Your task to perform on an android device: change keyboard looks Image 0: 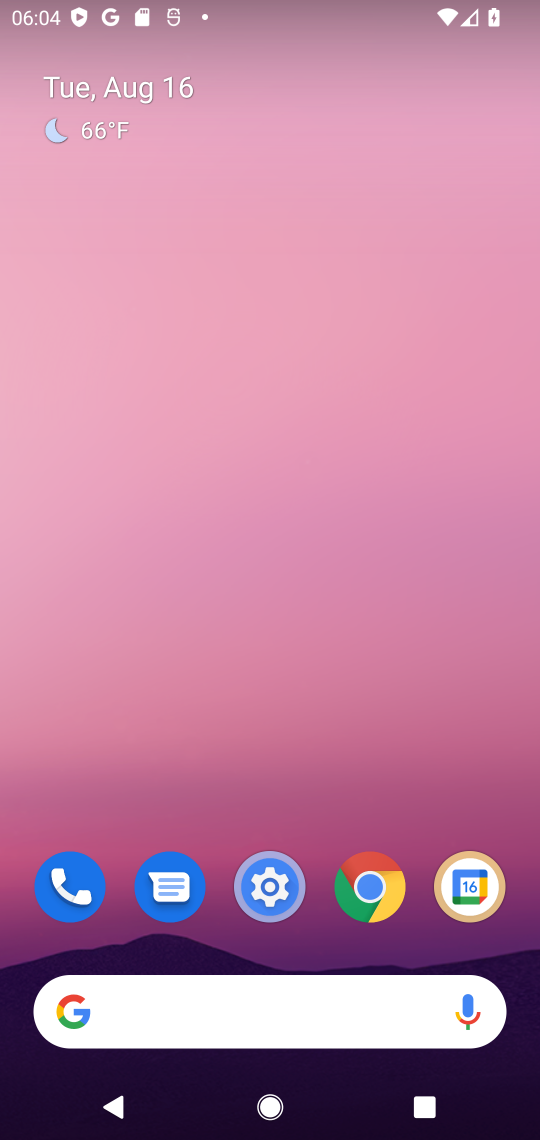
Step 0: drag from (318, 785) to (359, 180)
Your task to perform on an android device: change keyboard looks Image 1: 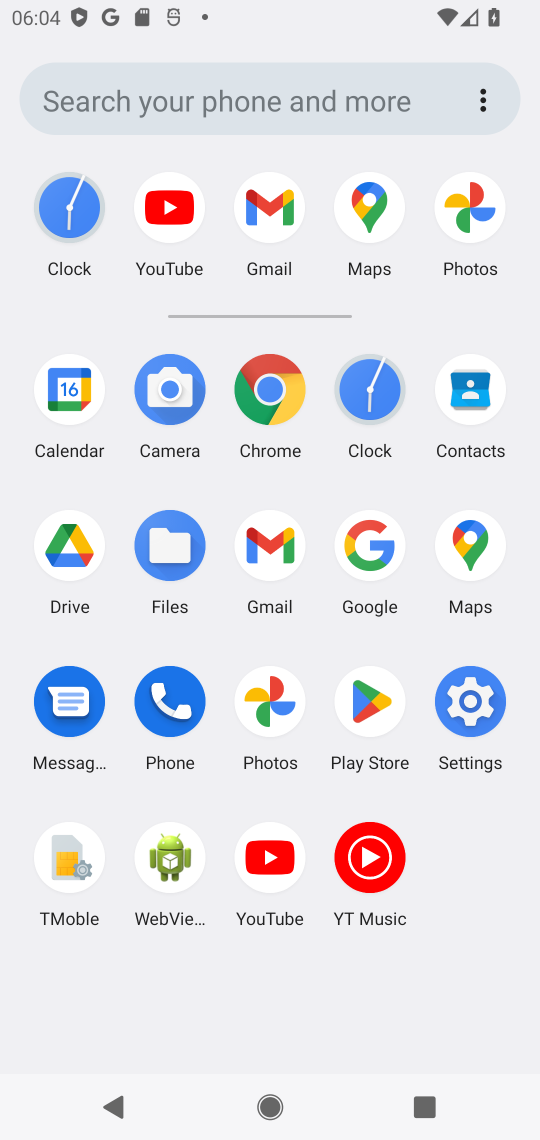
Step 1: click (449, 691)
Your task to perform on an android device: change keyboard looks Image 2: 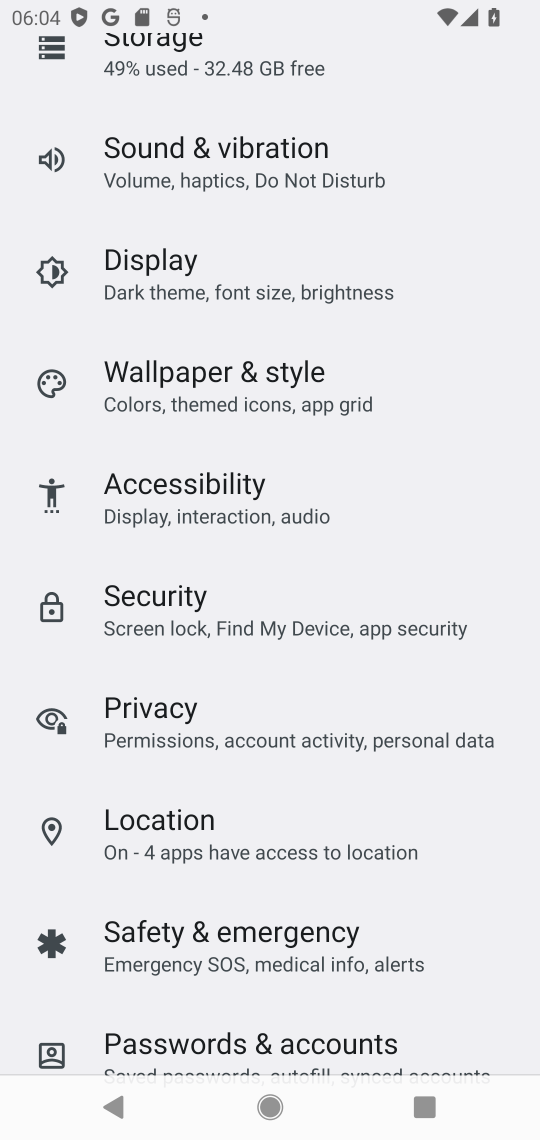
Step 2: drag from (362, 969) to (335, 415)
Your task to perform on an android device: change keyboard looks Image 3: 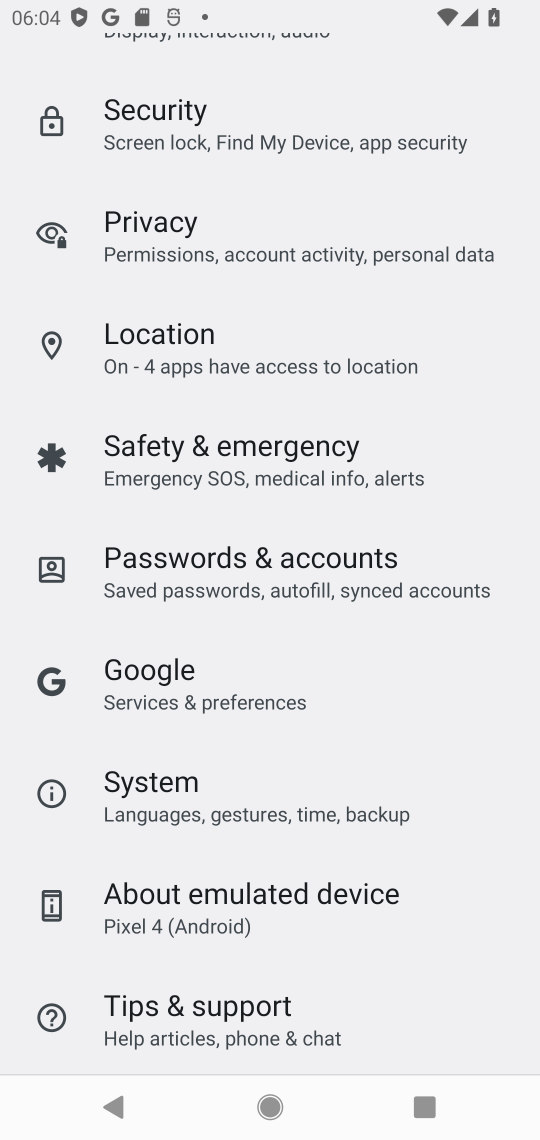
Step 3: click (237, 807)
Your task to perform on an android device: change keyboard looks Image 4: 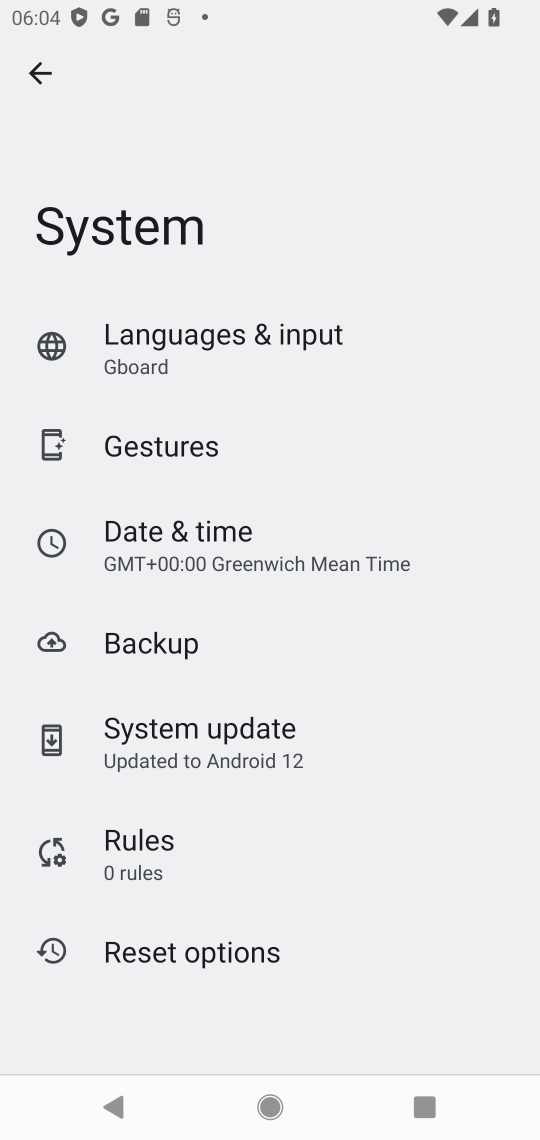
Step 4: click (281, 339)
Your task to perform on an android device: change keyboard looks Image 5: 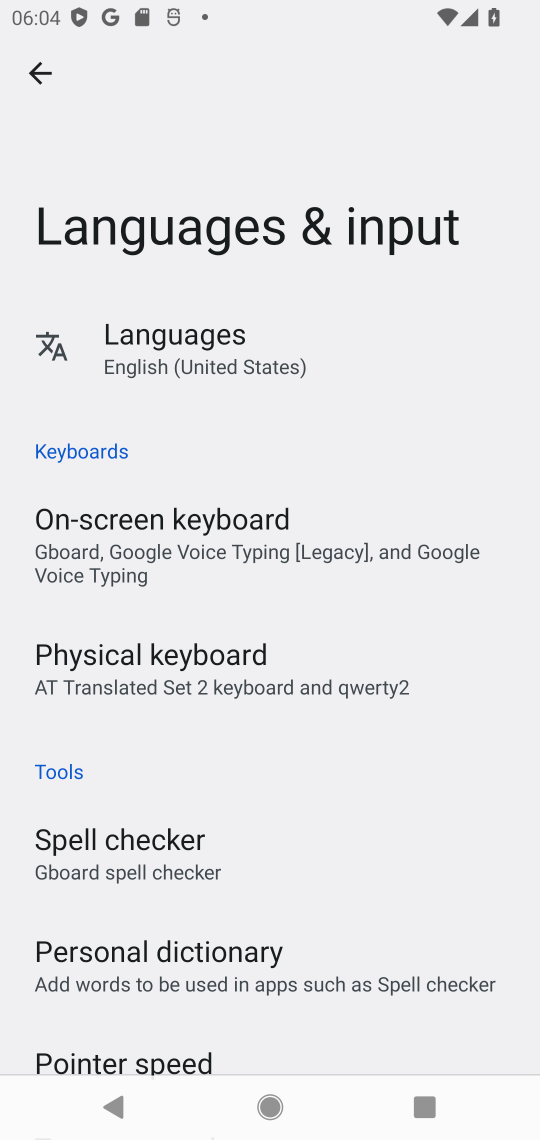
Step 5: click (201, 544)
Your task to perform on an android device: change keyboard looks Image 6: 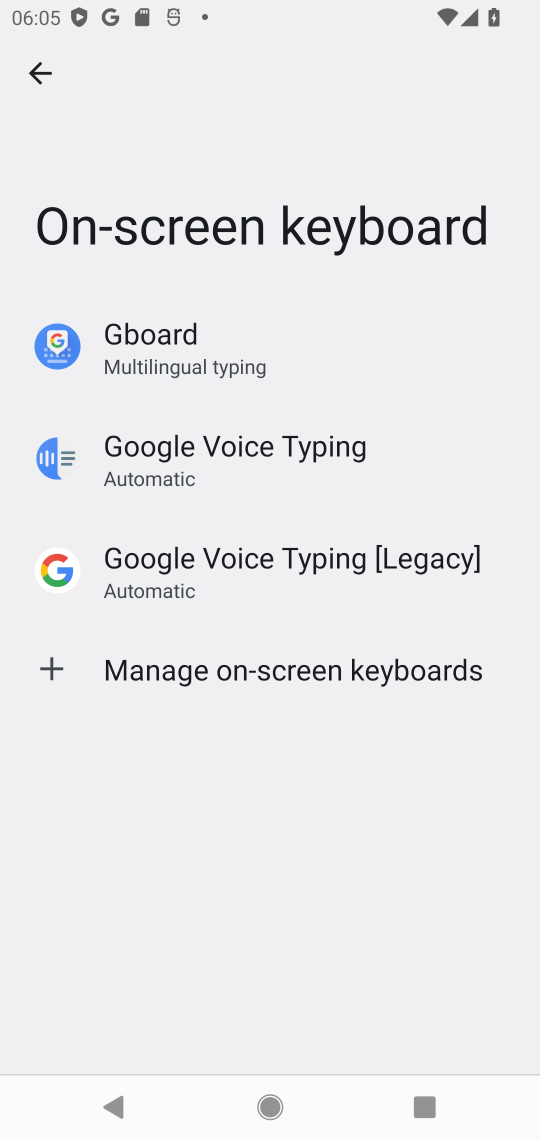
Step 6: click (208, 355)
Your task to perform on an android device: change keyboard looks Image 7: 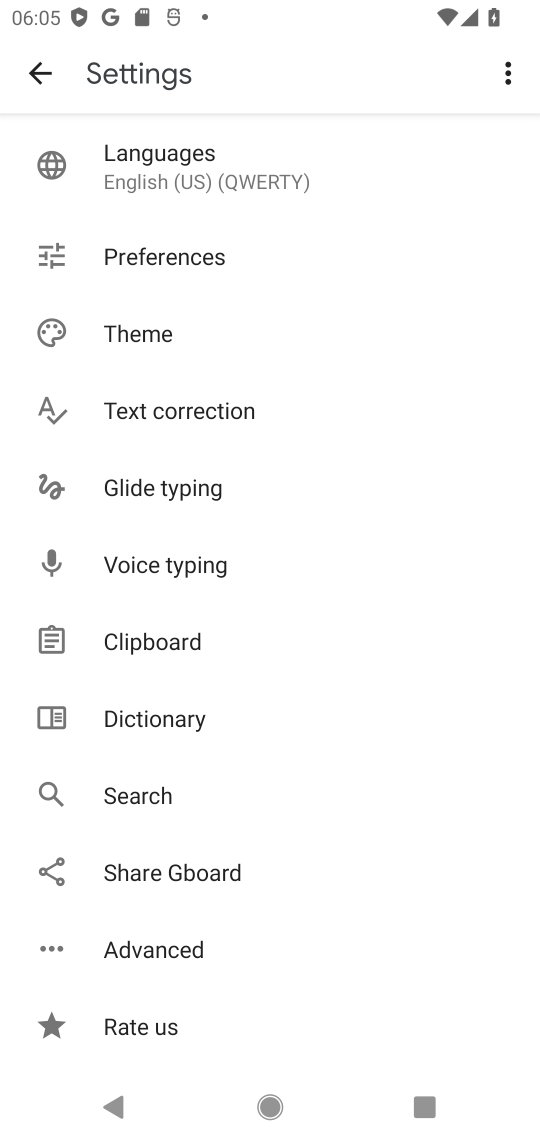
Step 7: click (180, 345)
Your task to perform on an android device: change keyboard looks Image 8: 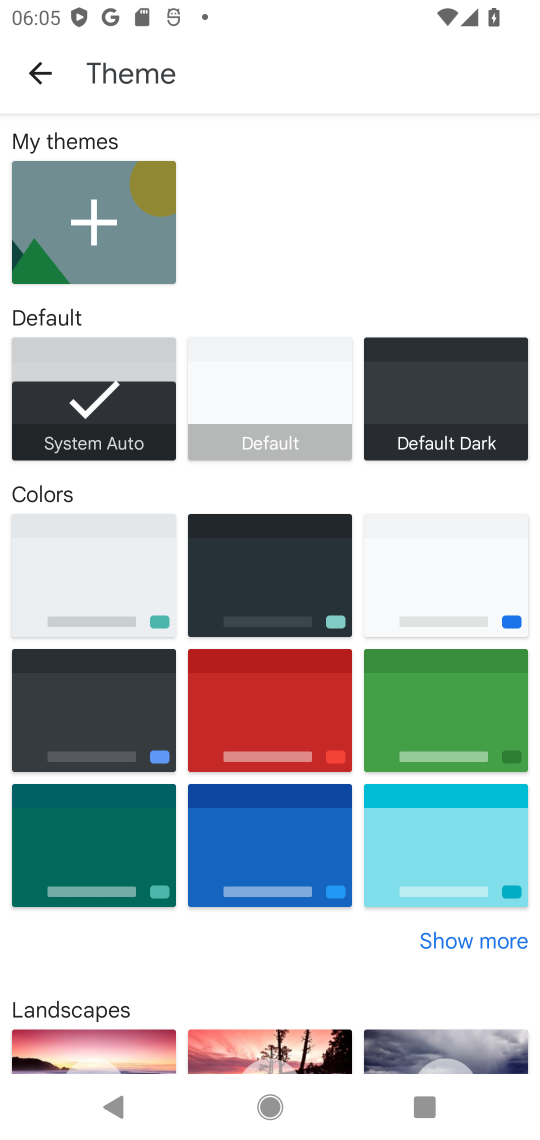
Step 8: click (485, 377)
Your task to perform on an android device: change keyboard looks Image 9: 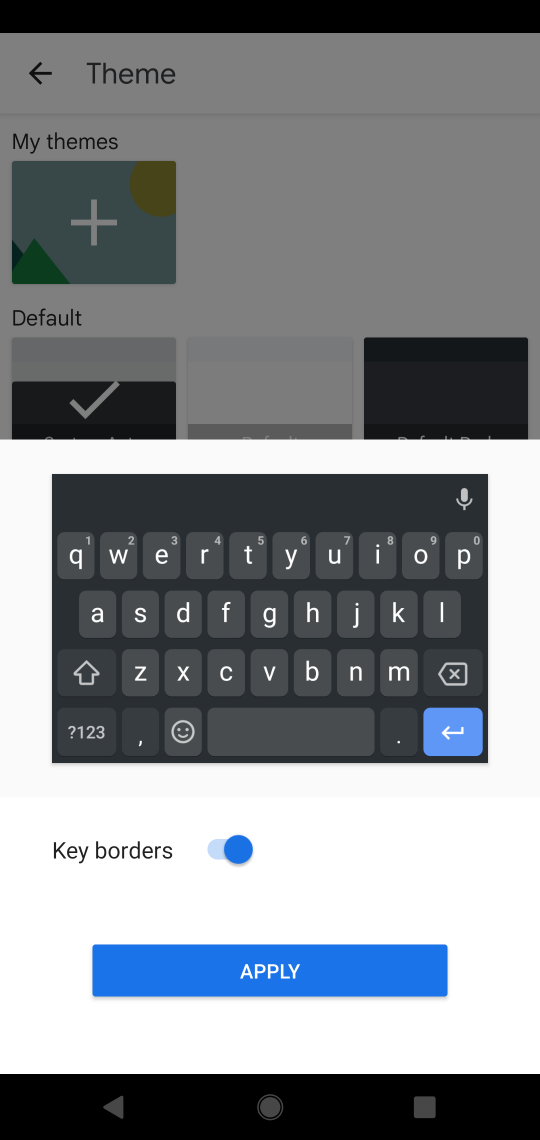
Step 9: click (235, 965)
Your task to perform on an android device: change keyboard looks Image 10: 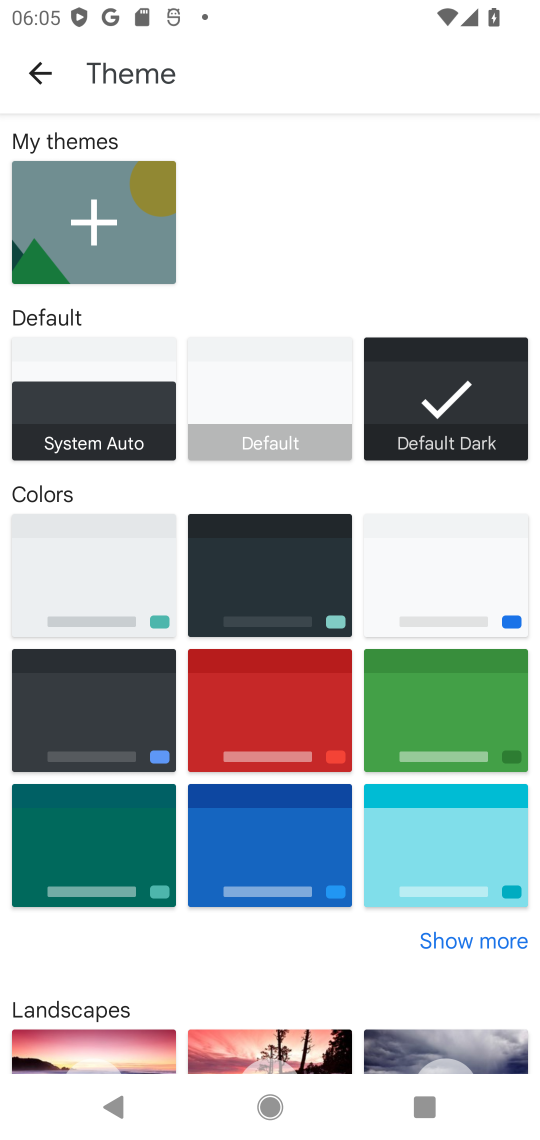
Step 10: task complete